Your task to perform on an android device: Add "razer naga" to the cart on amazon Image 0: 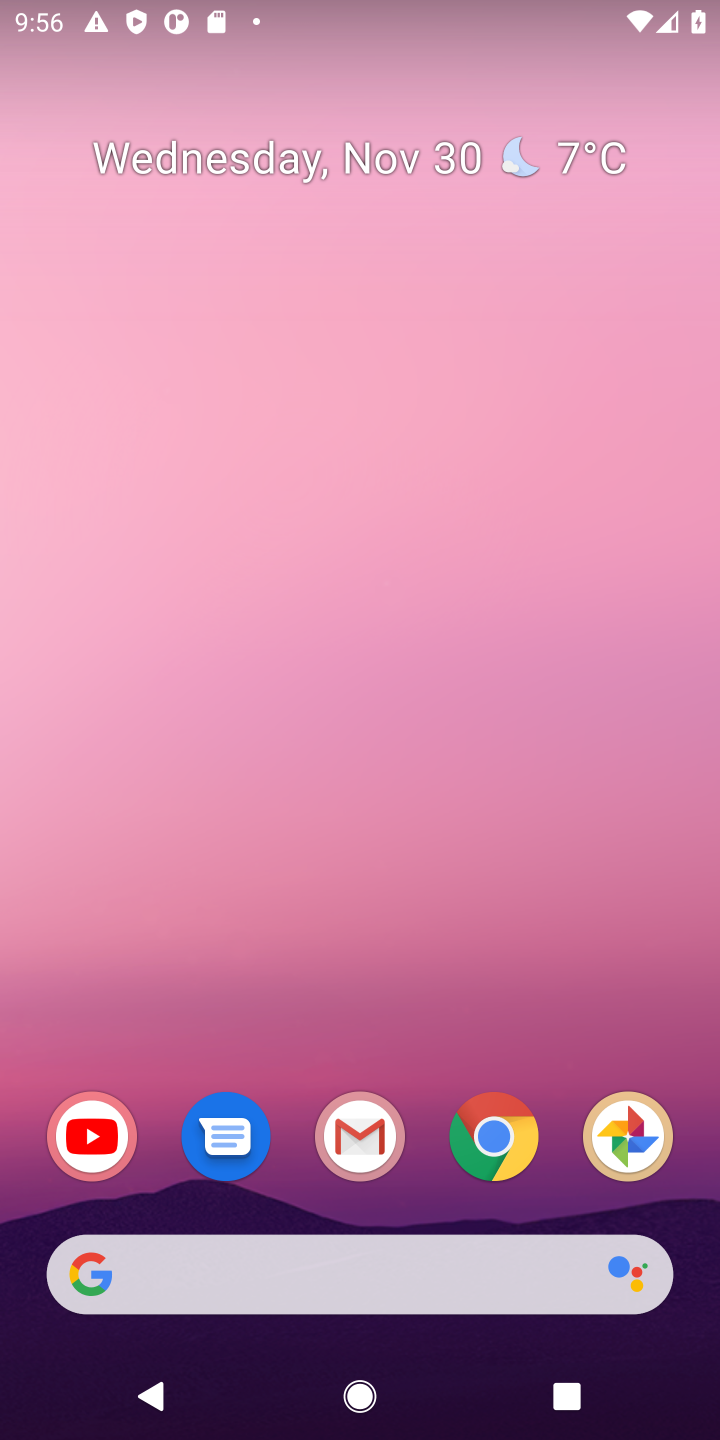
Step 0: click (496, 1130)
Your task to perform on an android device: Add "razer naga" to the cart on amazon Image 1: 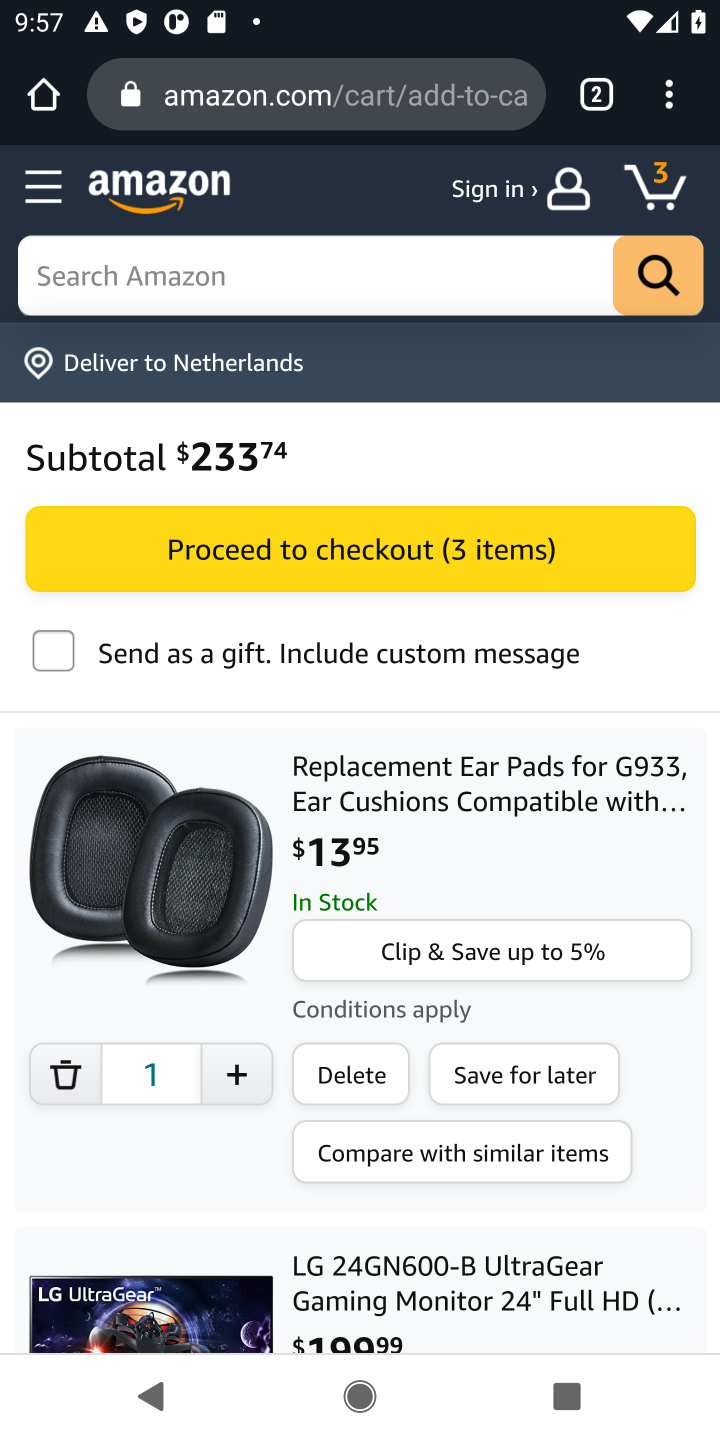
Step 1: click (154, 263)
Your task to perform on an android device: Add "razer naga" to the cart on amazon Image 2: 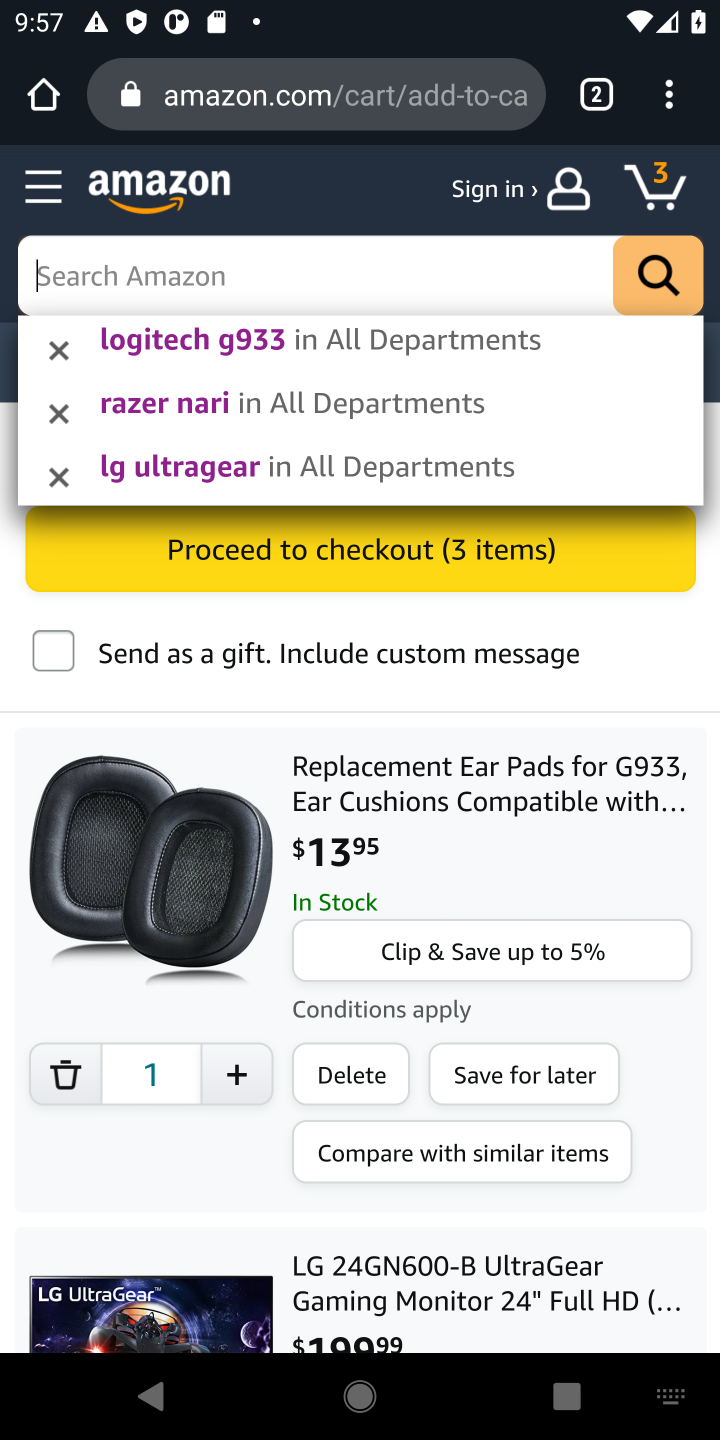
Step 2: type "razer naga "
Your task to perform on an android device: Add "razer naga" to the cart on amazon Image 3: 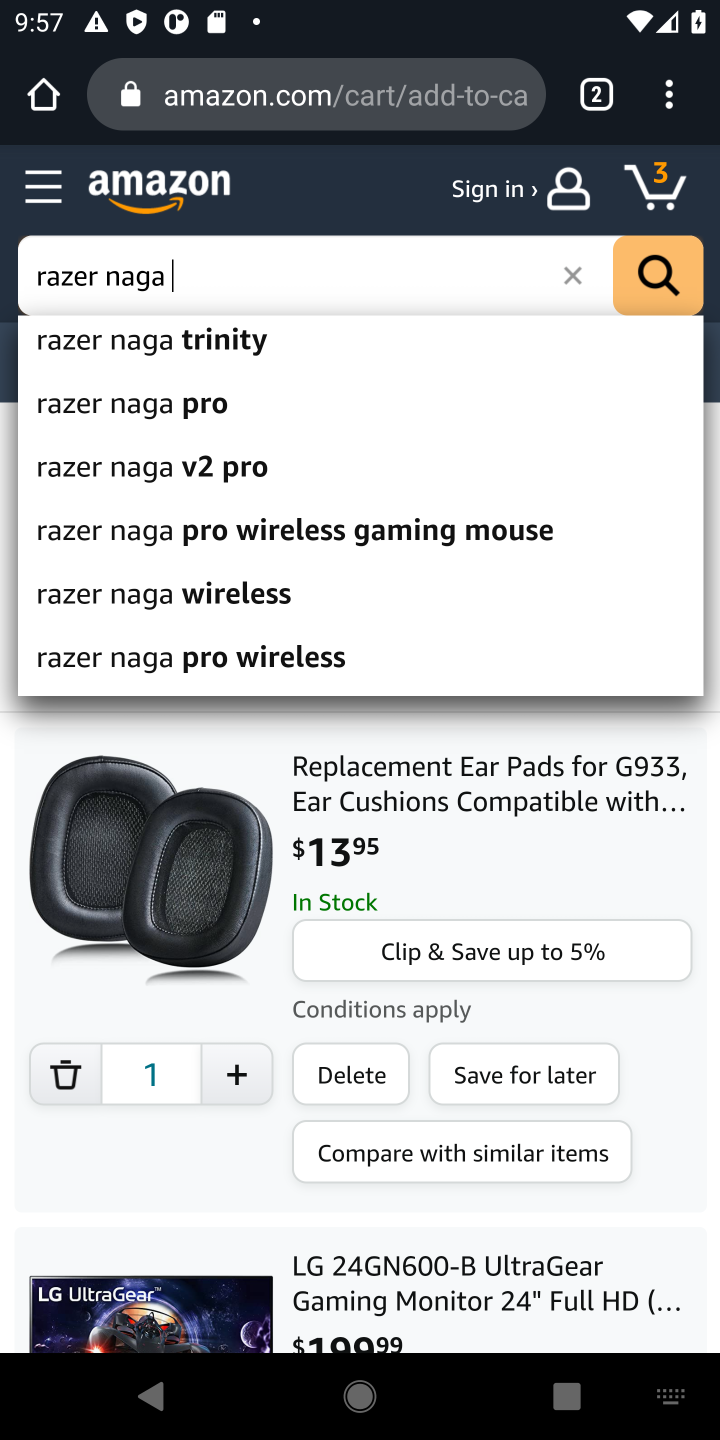
Step 3: click (655, 279)
Your task to perform on an android device: Add "razer naga" to the cart on amazon Image 4: 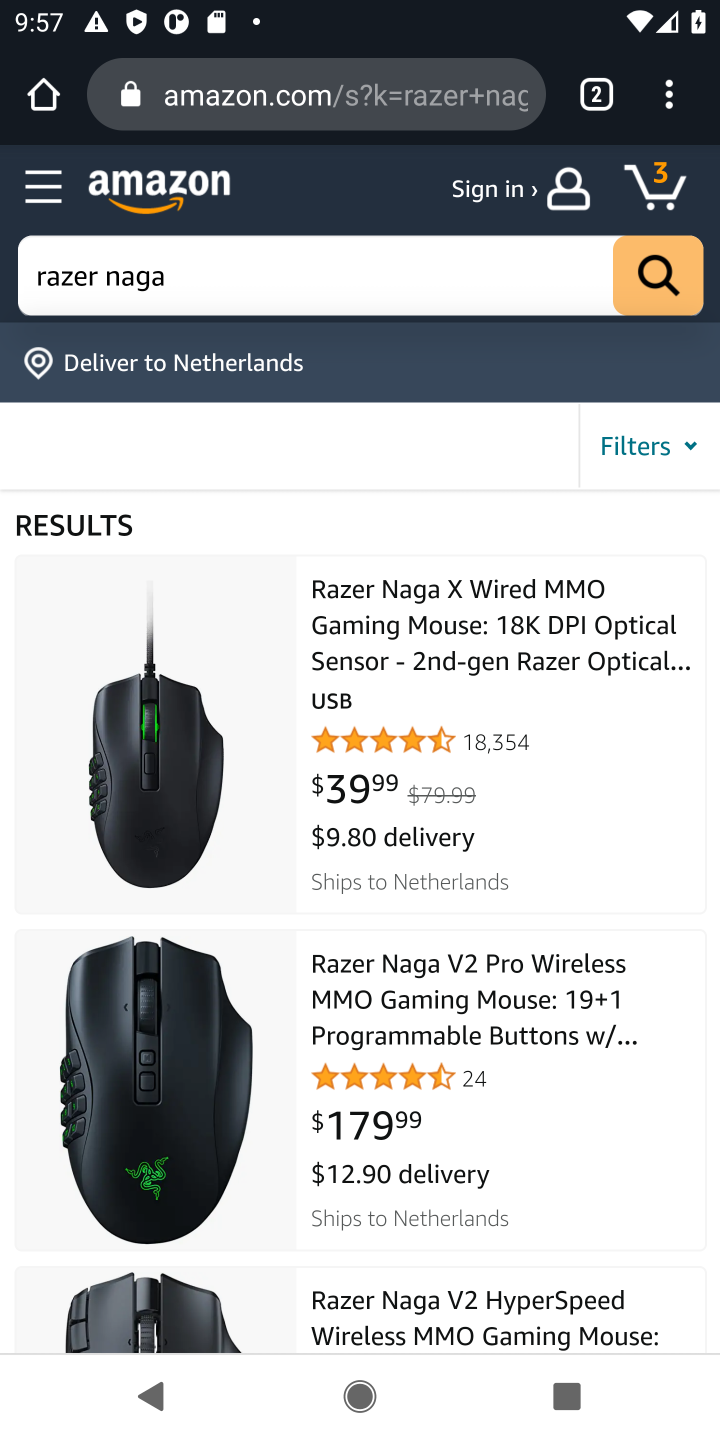
Step 4: click (454, 622)
Your task to perform on an android device: Add "razer naga" to the cart on amazon Image 5: 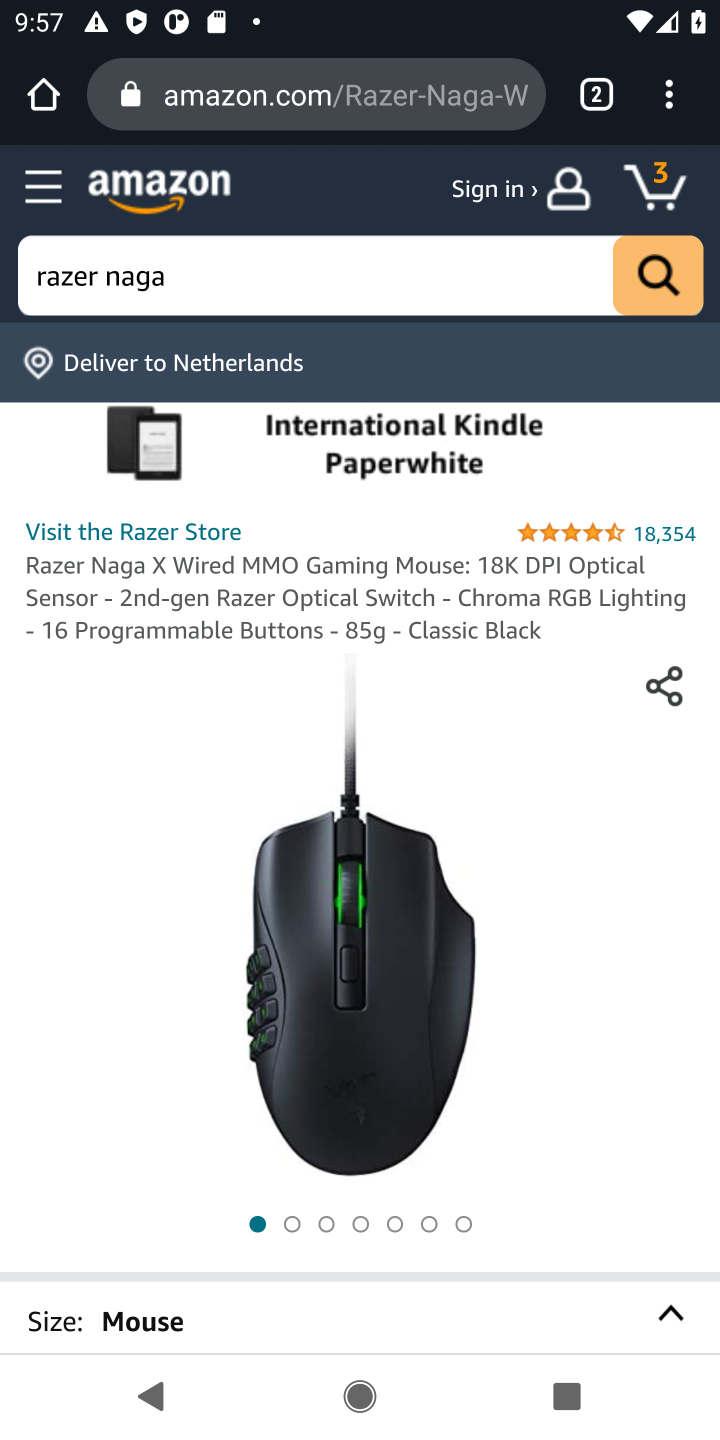
Step 5: drag from (525, 1071) to (458, 187)
Your task to perform on an android device: Add "razer naga" to the cart on amazon Image 6: 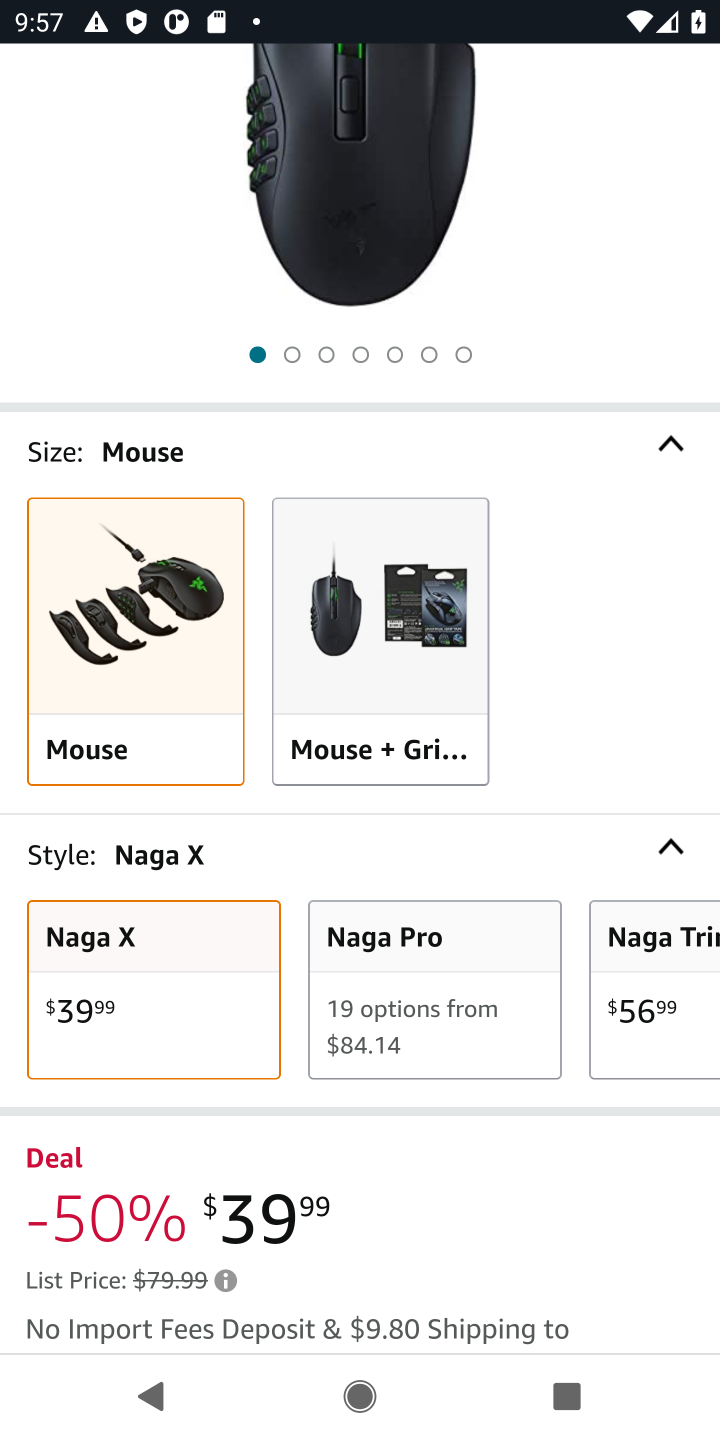
Step 6: drag from (462, 840) to (395, 240)
Your task to perform on an android device: Add "razer naga" to the cart on amazon Image 7: 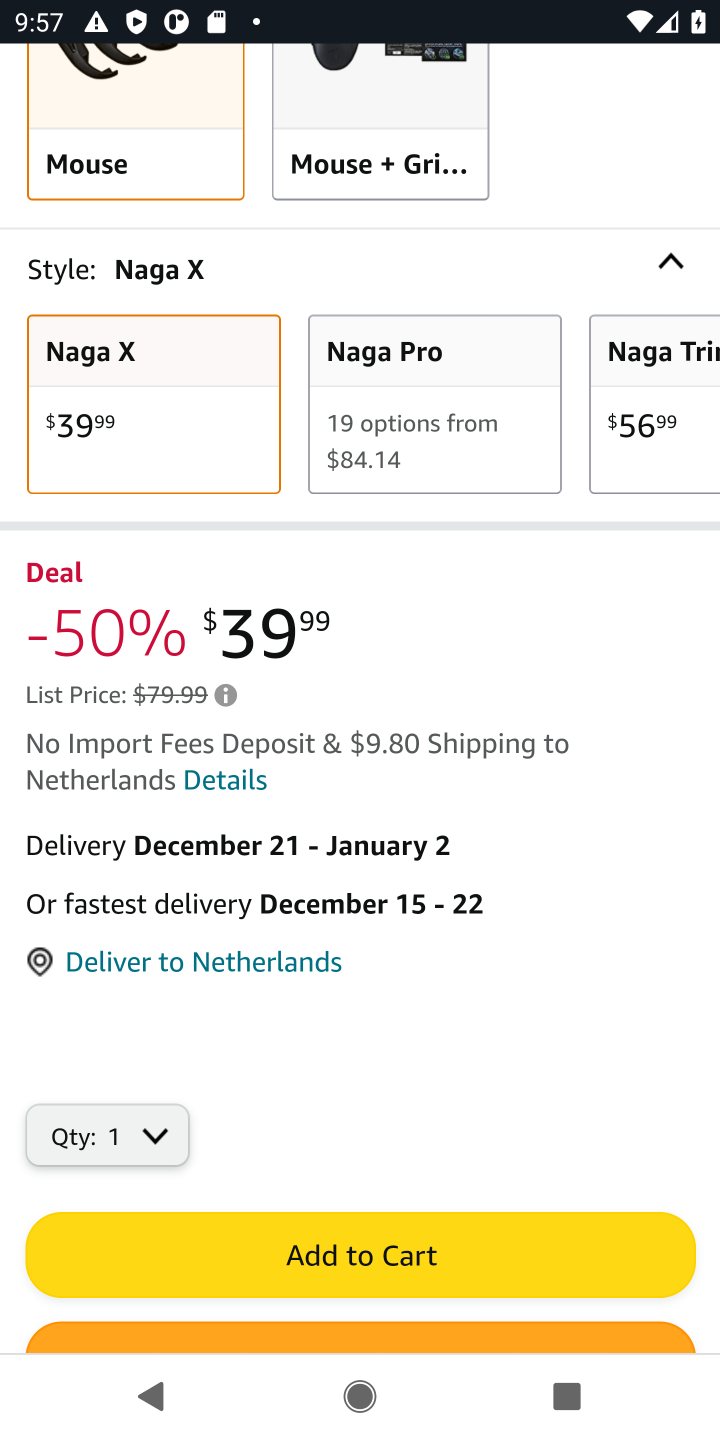
Step 7: click (417, 1243)
Your task to perform on an android device: Add "razer naga" to the cart on amazon Image 8: 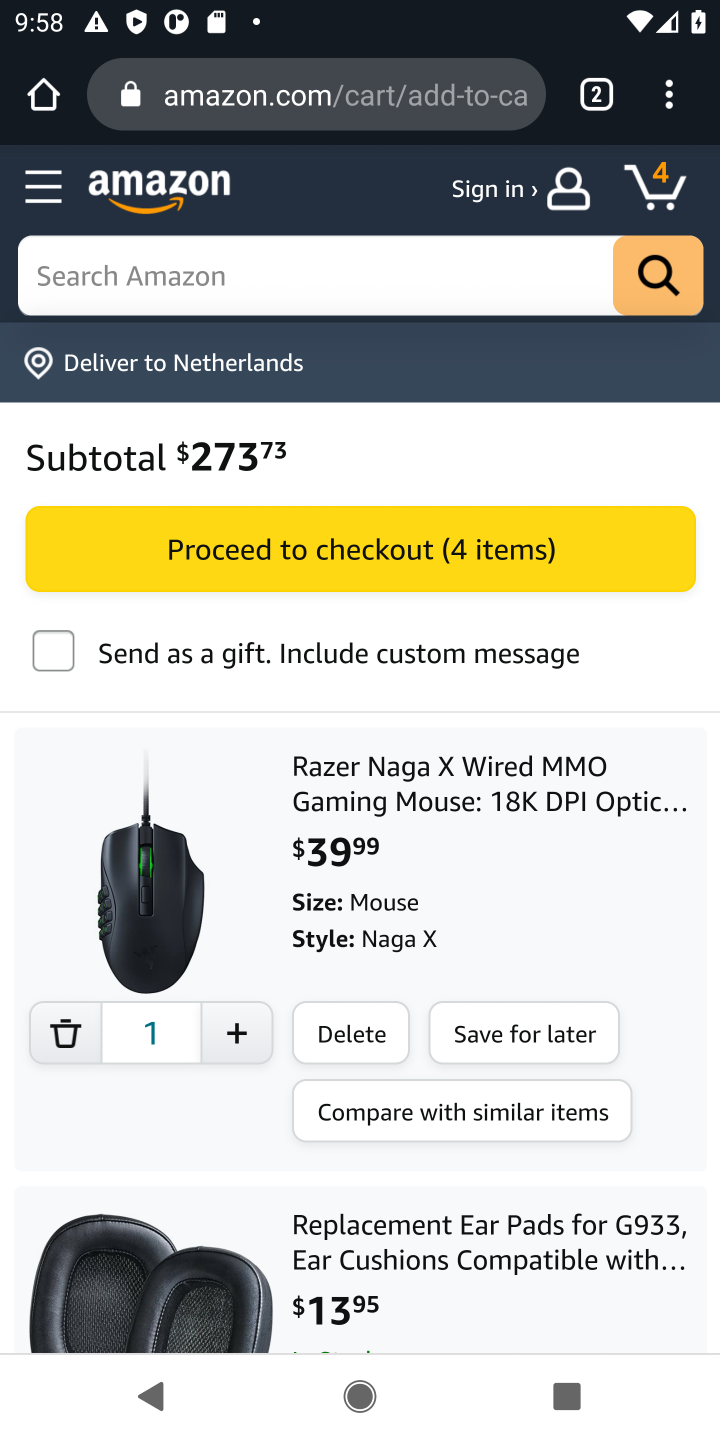
Step 8: task complete